Your task to perform on an android device: turn on notifications settings in the gmail app Image 0: 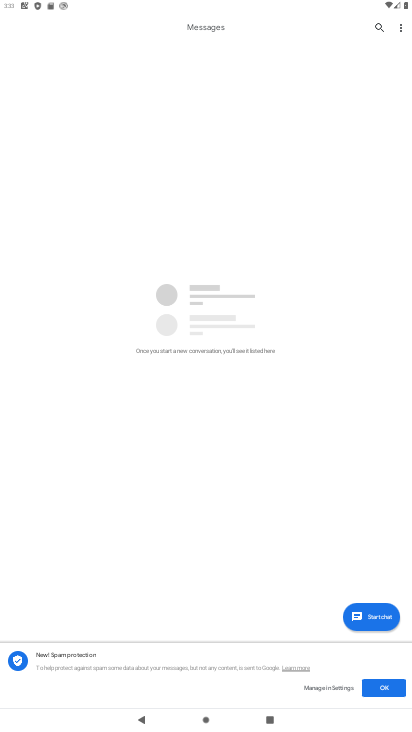
Step 0: press home button
Your task to perform on an android device: turn on notifications settings in the gmail app Image 1: 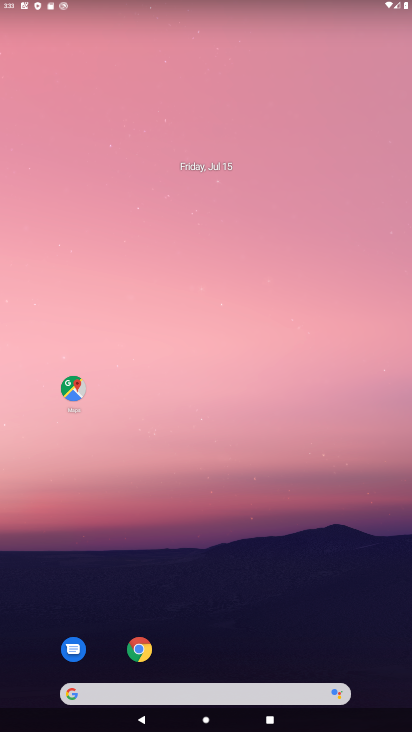
Step 1: drag from (216, 671) to (239, 249)
Your task to perform on an android device: turn on notifications settings in the gmail app Image 2: 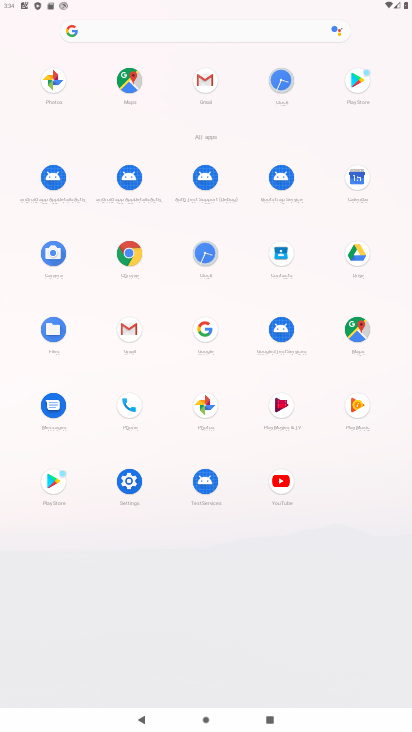
Step 2: click (140, 327)
Your task to perform on an android device: turn on notifications settings in the gmail app Image 3: 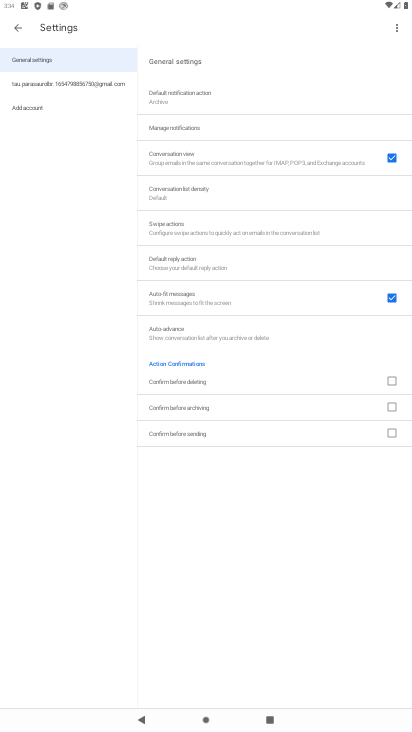
Step 3: click (85, 86)
Your task to perform on an android device: turn on notifications settings in the gmail app Image 4: 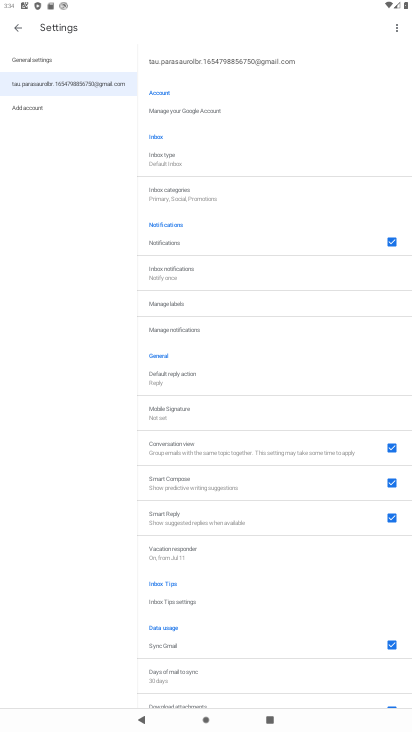
Step 4: click (212, 334)
Your task to perform on an android device: turn on notifications settings in the gmail app Image 5: 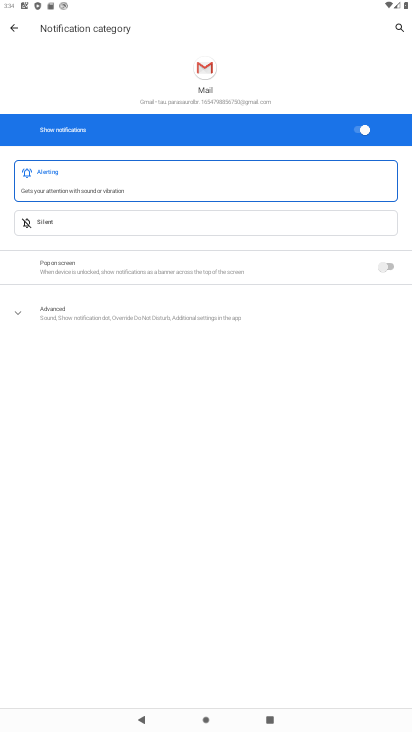
Step 5: task complete